Your task to perform on an android device: turn off location Image 0: 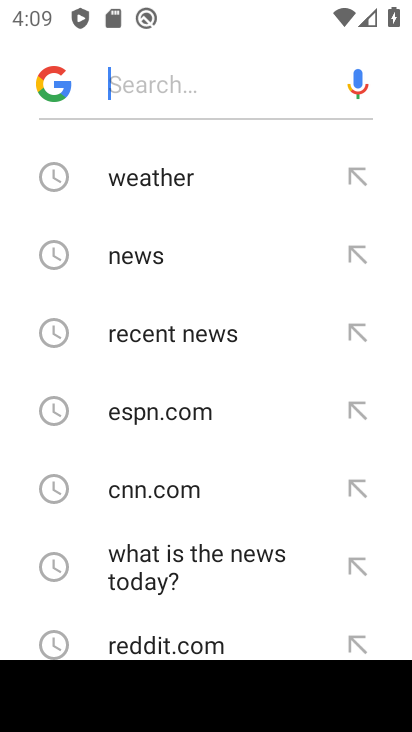
Step 0: press home button
Your task to perform on an android device: turn off location Image 1: 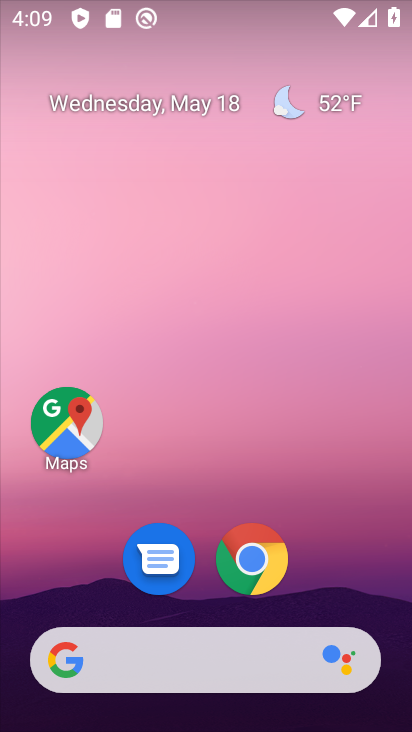
Step 1: drag from (185, 581) to (262, 106)
Your task to perform on an android device: turn off location Image 2: 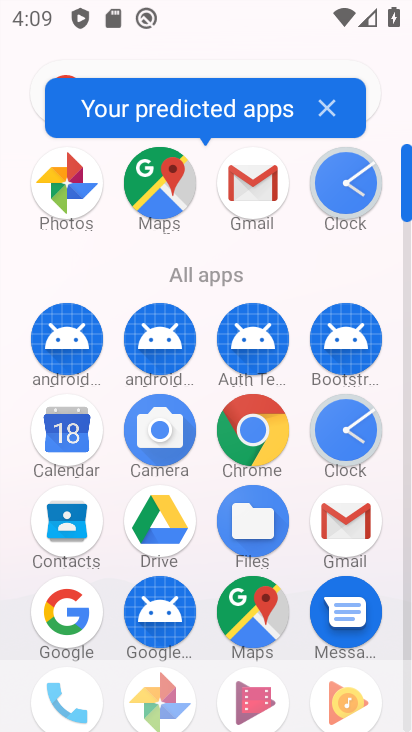
Step 2: drag from (192, 612) to (265, 165)
Your task to perform on an android device: turn off location Image 3: 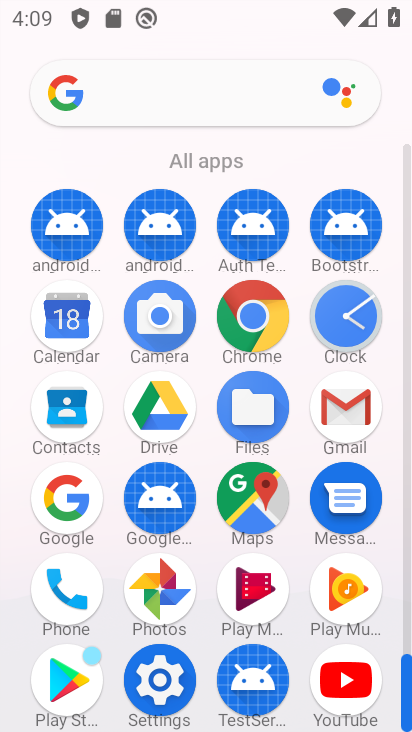
Step 3: click (154, 677)
Your task to perform on an android device: turn off location Image 4: 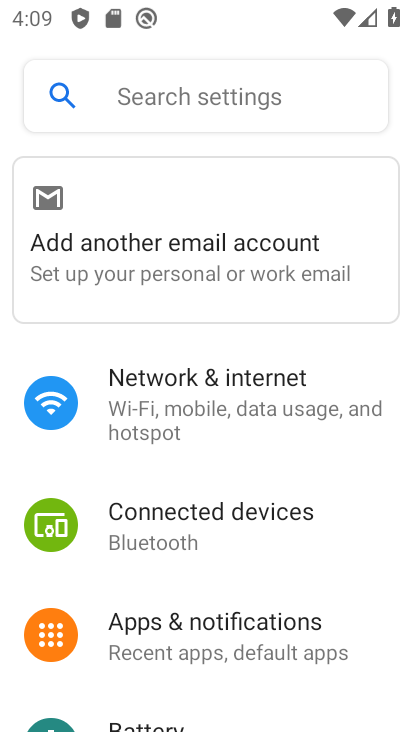
Step 4: drag from (163, 639) to (316, 168)
Your task to perform on an android device: turn off location Image 5: 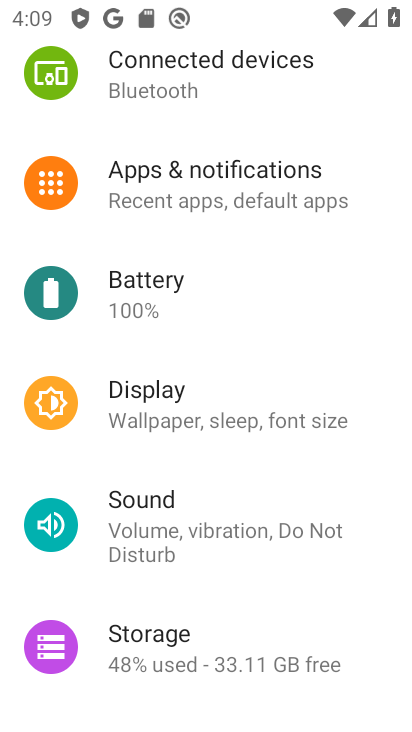
Step 5: drag from (180, 592) to (245, 184)
Your task to perform on an android device: turn off location Image 6: 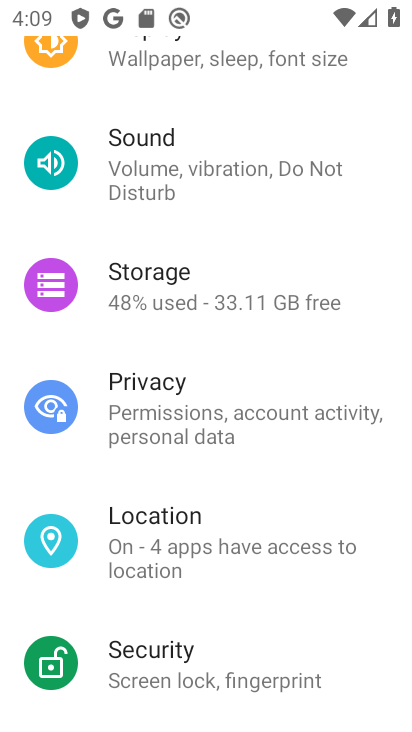
Step 6: click (143, 525)
Your task to perform on an android device: turn off location Image 7: 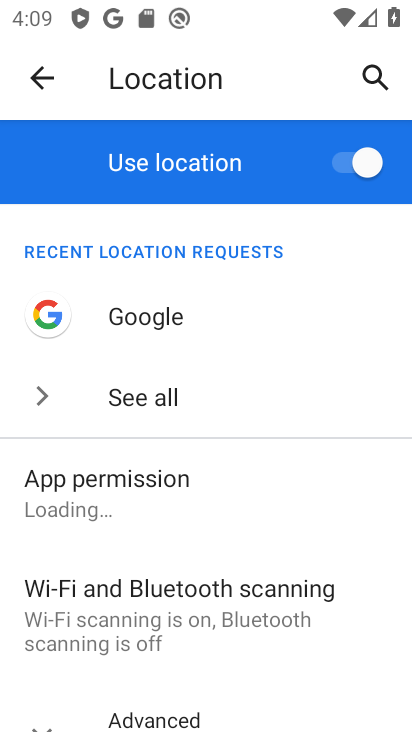
Step 7: click (350, 172)
Your task to perform on an android device: turn off location Image 8: 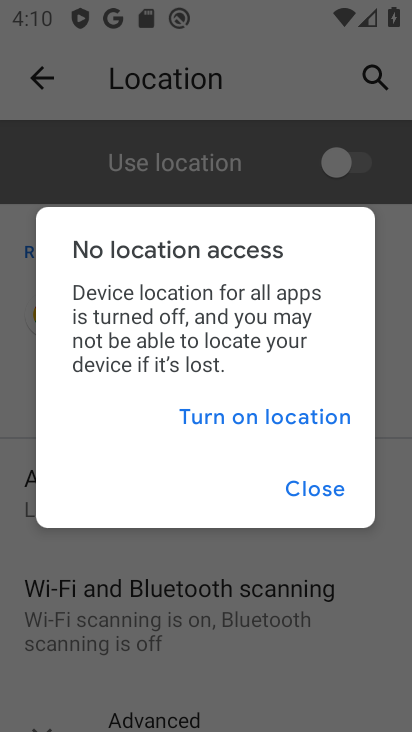
Step 8: task complete